Your task to perform on an android device: Open accessibility settings Image 0: 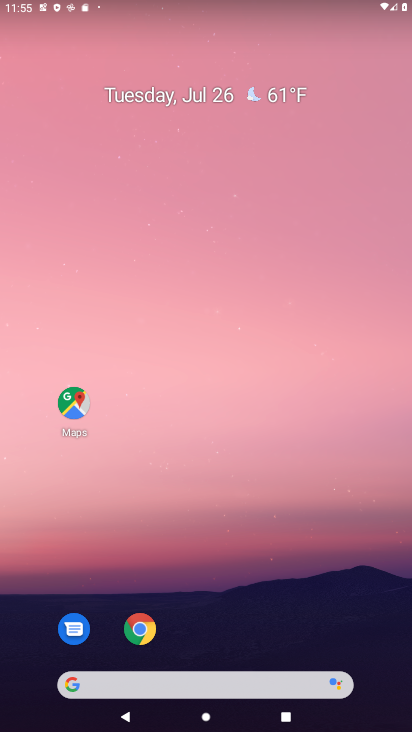
Step 0: drag from (239, 631) to (251, 144)
Your task to perform on an android device: Open accessibility settings Image 1: 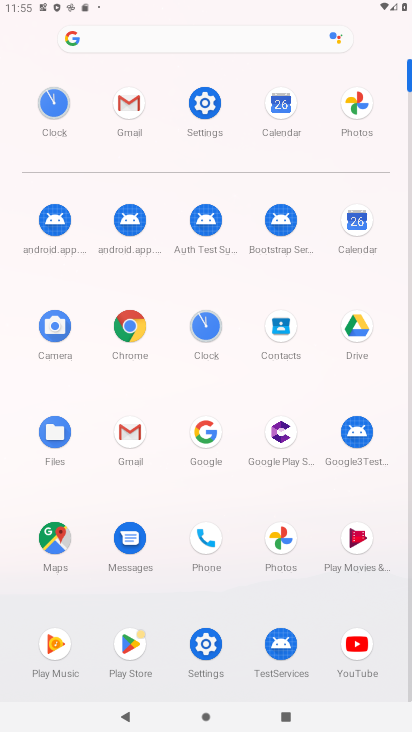
Step 1: click (207, 109)
Your task to perform on an android device: Open accessibility settings Image 2: 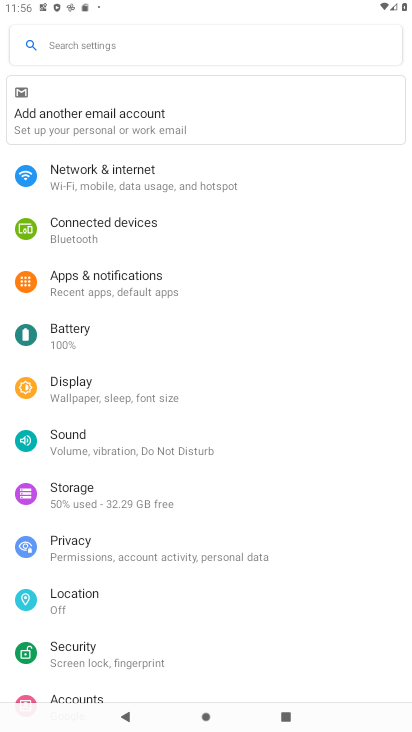
Step 2: drag from (111, 635) to (116, 368)
Your task to perform on an android device: Open accessibility settings Image 3: 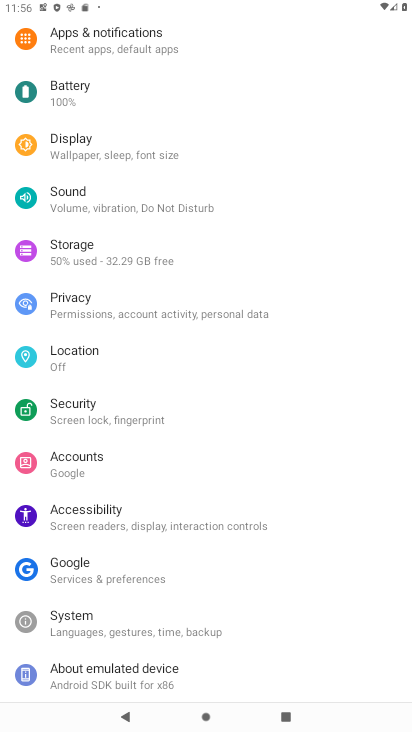
Step 3: click (123, 537)
Your task to perform on an android device: Open accessibility settings Image 4: 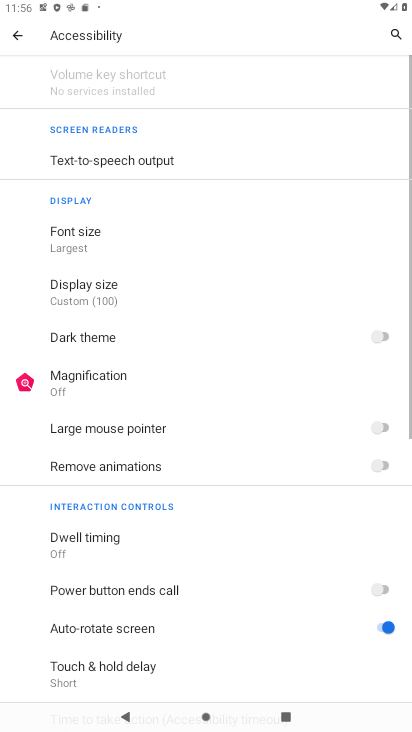
Step 4: task complete